Your task to perform on an android device: turn off priority inbox in the gmail app Image 0: 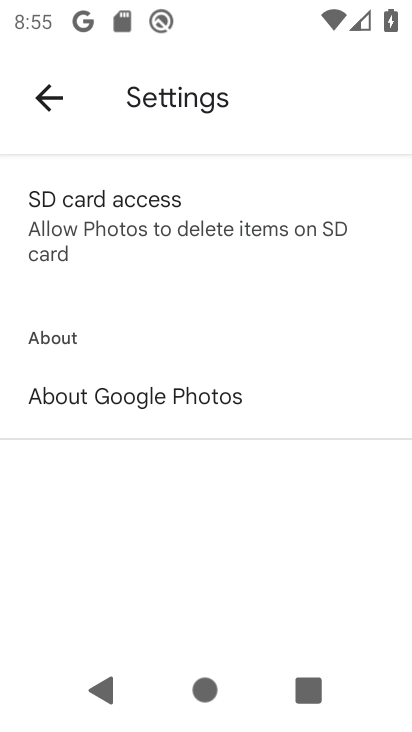
Step 0: press home button
Your task to perform on an android device: turn off priority inbox in the gmail app Image 1: 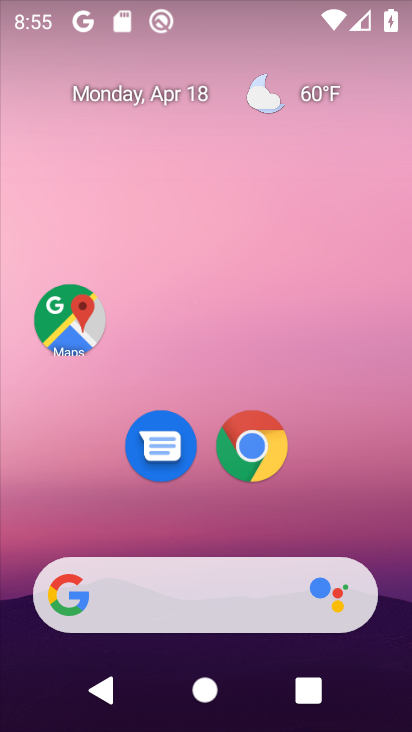
Step 1: drag from (366, 525) to (345, 81)
Your task to perform on an android device: turn off priority inbox in the gmail app Image 2: 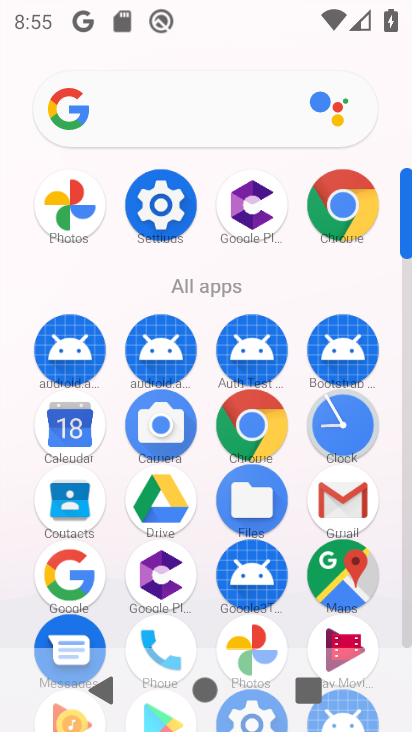
Step 2: click (344, 509)
Your task to perform on an android device: turn off priority inbox in the gmail app Image 3: 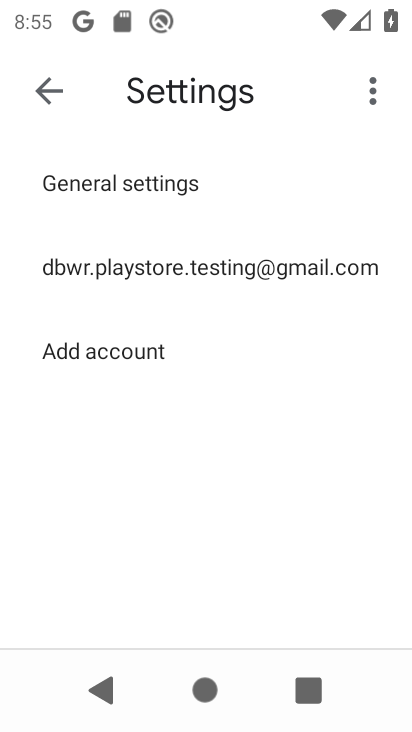
Step 3: click (193, 268)
Your task to perform on an android device: turn off priority inbox in the gmail app Image 4: 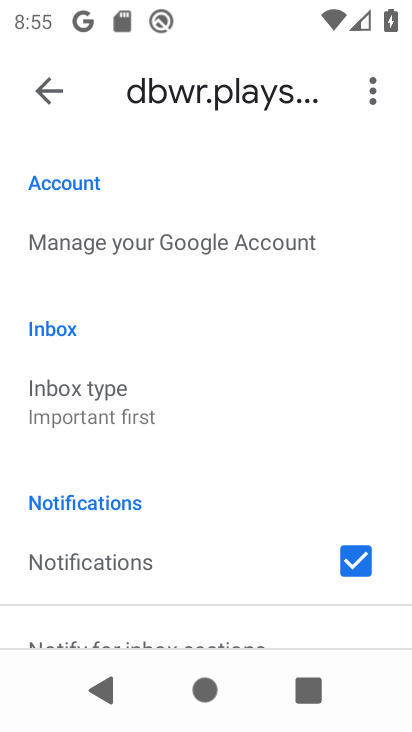
Step 4: drag from (285, 536) to (279, 337)
Your task to perform on an android device: turn off priority inbox in the gmail app Image 5: 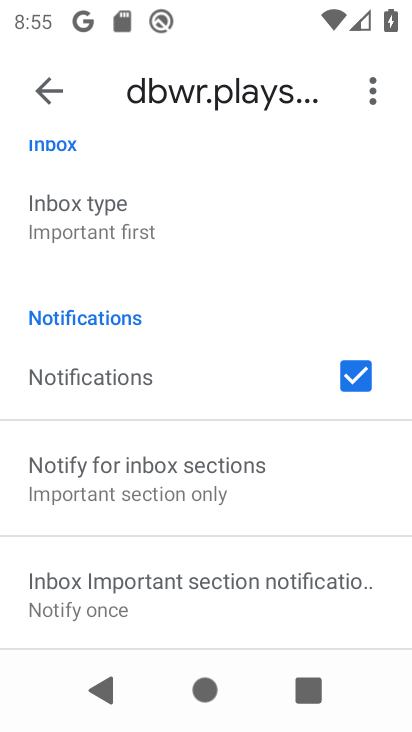
Step 5: drag from (314, 498) to (299, 301)
Your task to perform on an android device: turn off priority inbox in the gmail app Image 6: 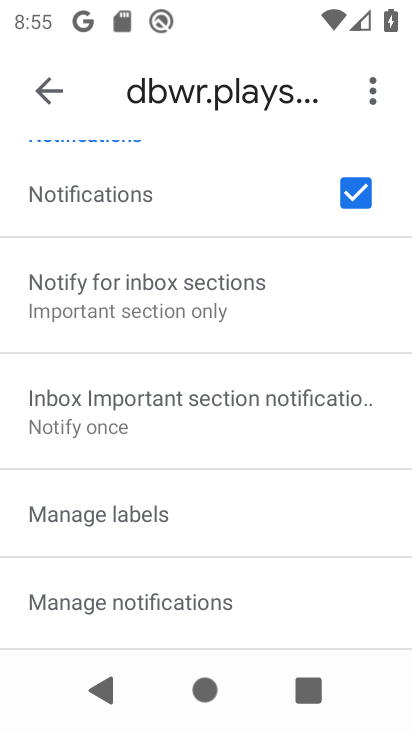
Step 6: drag from (318, 553) to (338, 330)
Your task to perform on an android device: turn off priority inbox in the gmail app Image 7: 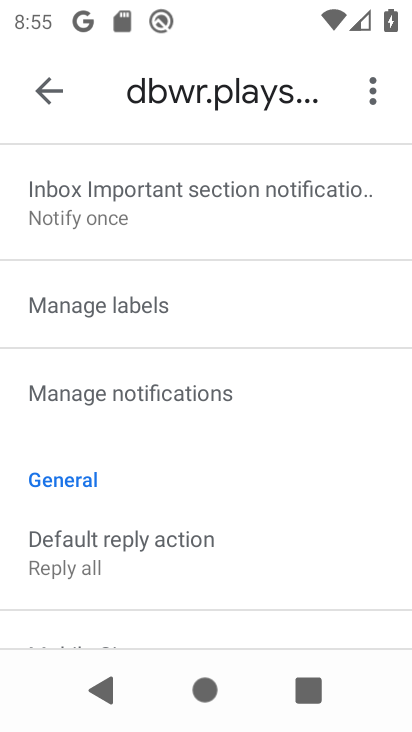
Step 7: drag from (352, 538) to (350, 353)
Your task to perform on an android device: turn off priority inbox in the gmail app Image 8: 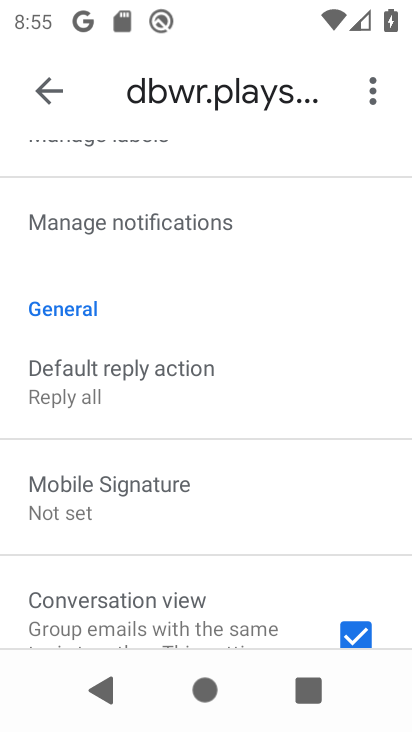
Step 8: drag from (356, 510) to (337, 330)
Your task to perform on an android device: turn off priority inbox in the gmail app Image 9: 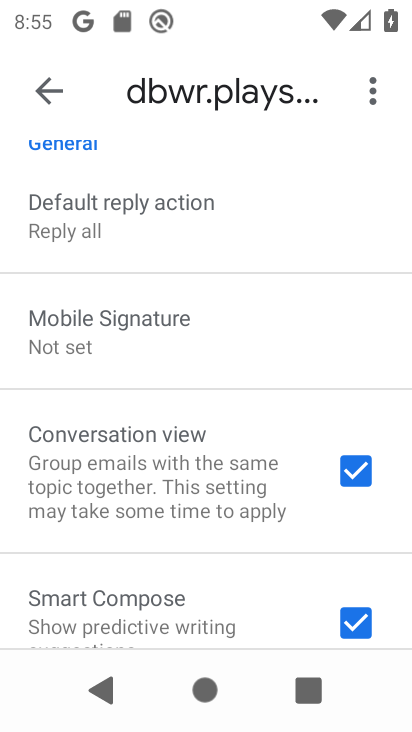
Step 9: drag from (296, 571) to (287, 382)
Your task to perform on an android device: turn off priority inbox in the gmail app Image 10: 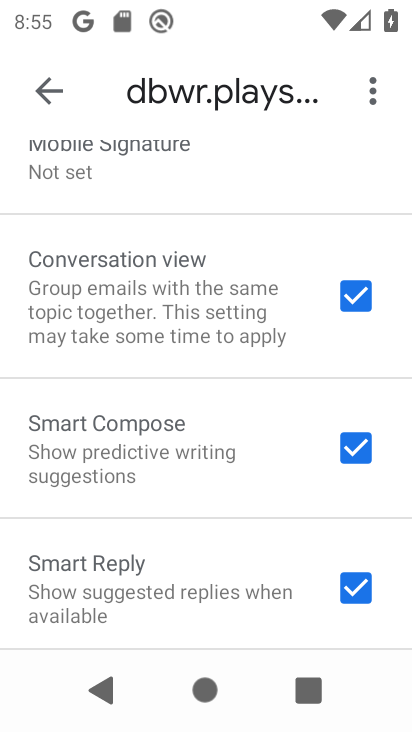
Step 10: drag from (300, 526) to (282, 353)
Your task to perform on an android device: turn off priority inbox in the gmail app Image 11: 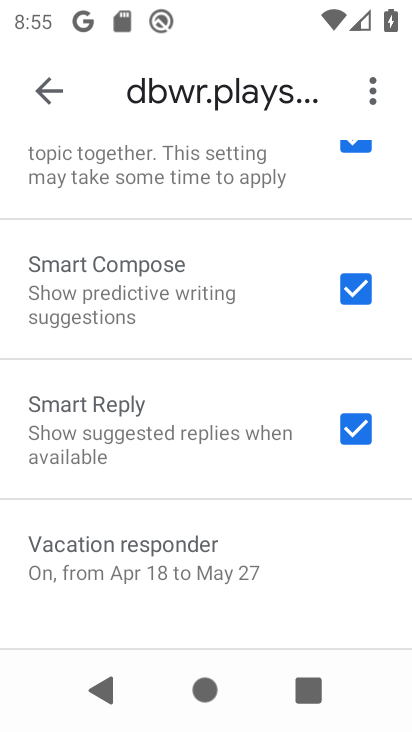
Step 11: drag from (297, 578) to (299, 336)
Your task to perform on an android device: turn off priority inbox in the gmail app Image 12: 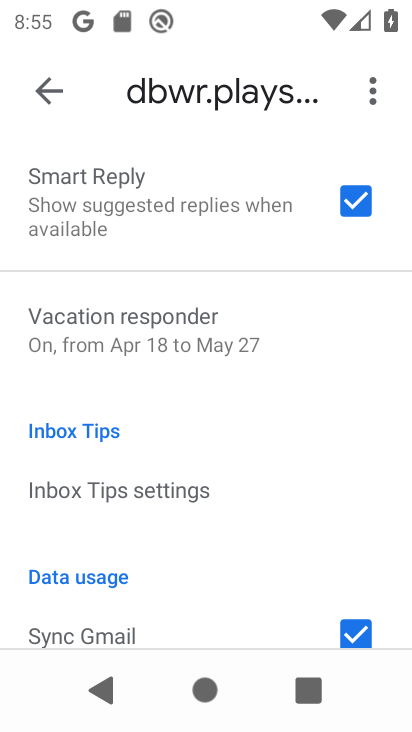
Step 12: drag from (277, 579) to (296, 308)
Your task to perform on an android device: turn off priority inbox in the gmail app Image 13: 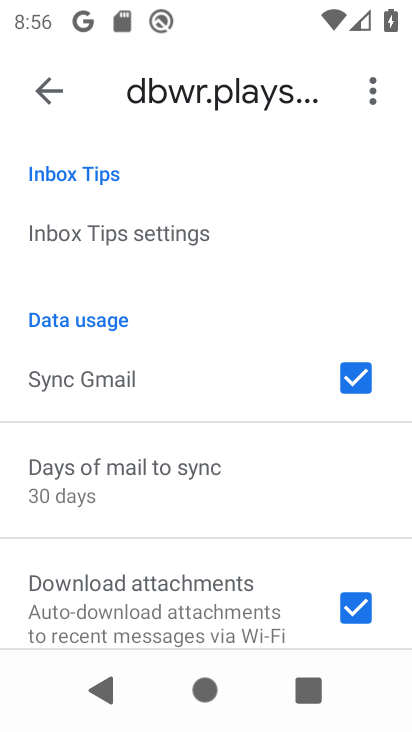
Step 13: drag from (300, 269) to (277, 506)
Your task to perform on an android device: turn off priority inbox in the gmail app Image 14: 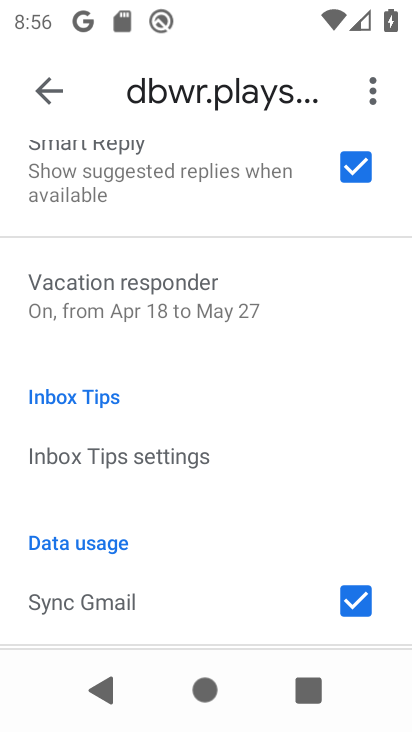
Step 14: drag from (294, 284) to (296, 498)
Your task to perform on an android device: turn off priority inbox in the gmail app Image 15: 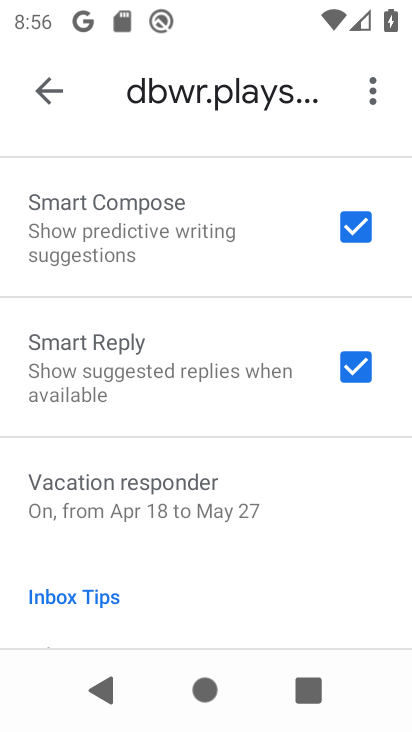
Step 15: drag from (290, 244) to (286, 460)
Your task to perform on an android device: turn off priority inbox in the gmail app Image 16: 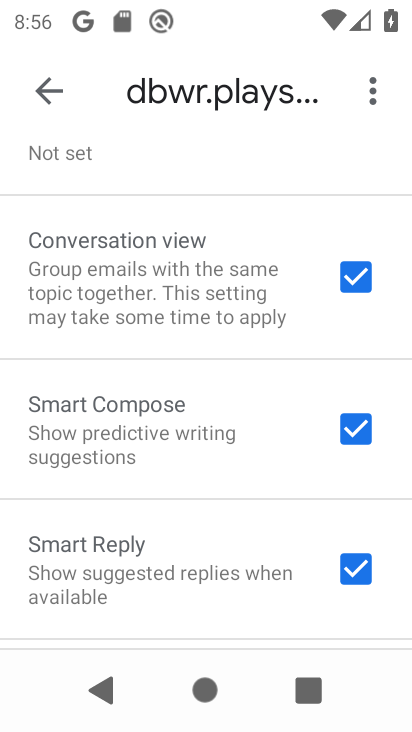
Step 16: drag from (303, 243) to (306, 467)
Your task to perform on an android device: turn off priority inbox in the gmail app Image 17: 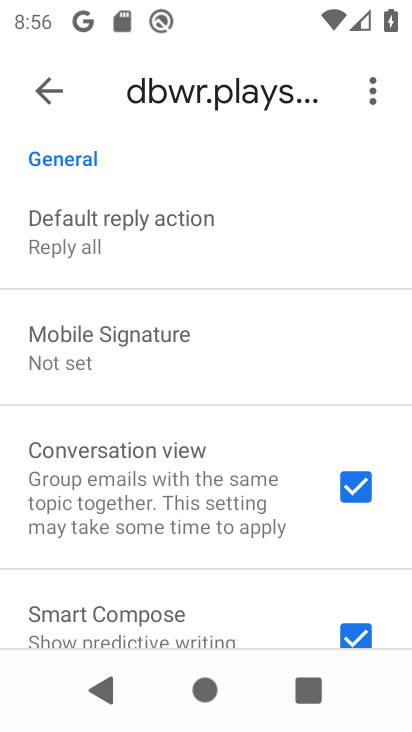
Step 17: drag from (311, 244) to (296, 429)
Your task to perform on an android device: turn off priority inbox in the gmail app Image 18: 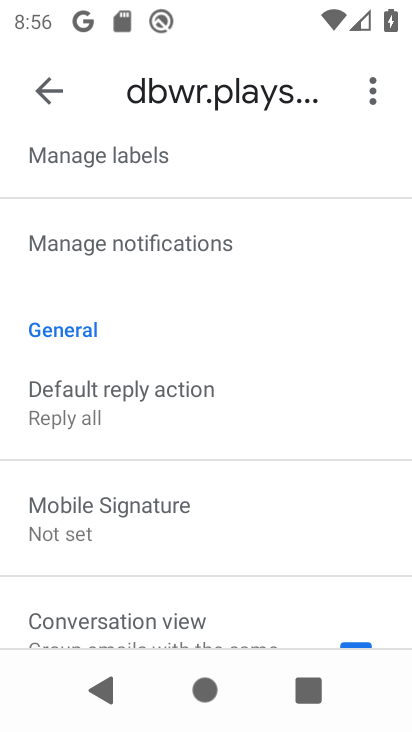
Step 18: drag from (297, 234) to (294, 440)
Your task to perform on an android device: turn off priority inbox in the gmail app Image 19: 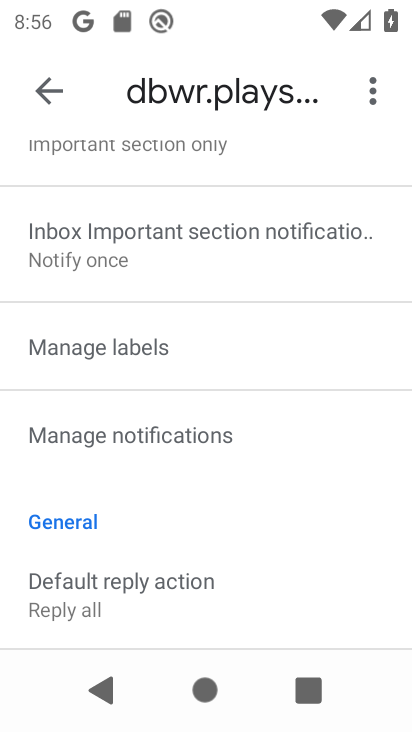
Step 19: drag from (258, 187) to (287, 430)
Your task to perform on an android device: turn off priority inbox in the gmail app Image 20: 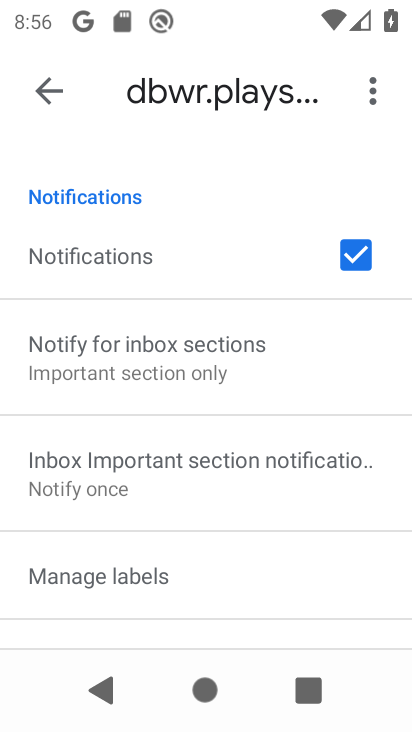
Step 20: drag from (266, 199) to (274, 435)
Your task to perform on an android device: turn off priority inbox in the gmail app Image 21: 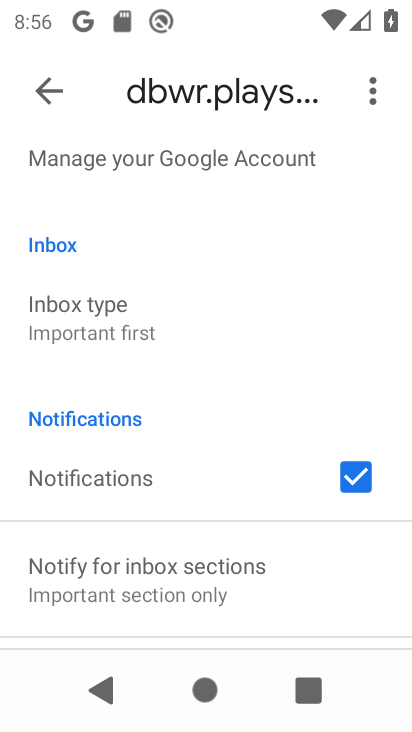
Step 21: click (115, 319)
Your task to perform on an android device: turn off priority inbox in the gmail app Image 22: 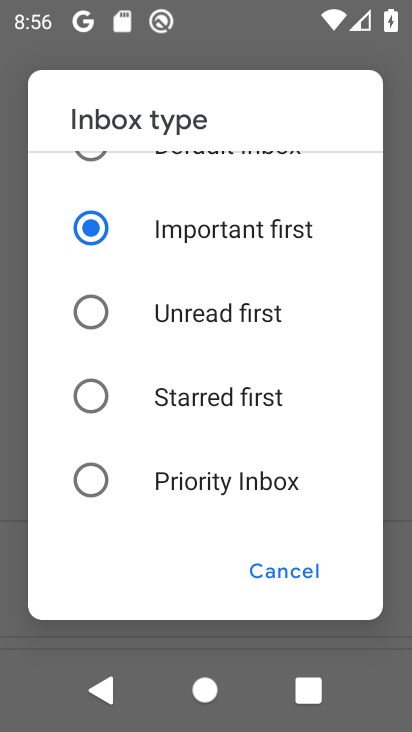
Step 22: task complete